Your task to perform on an android device: Go to accessibility settings Image 0: 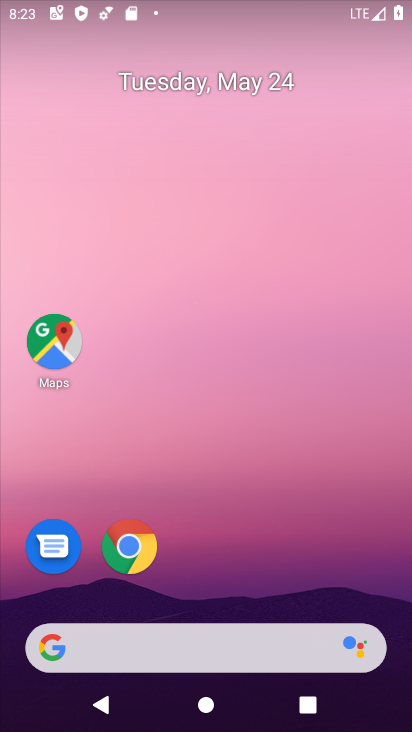
Step 0: drag from (219, 522) to (234, 5)
Your task to perform on an android device: Go to accessibility settings Image 1: 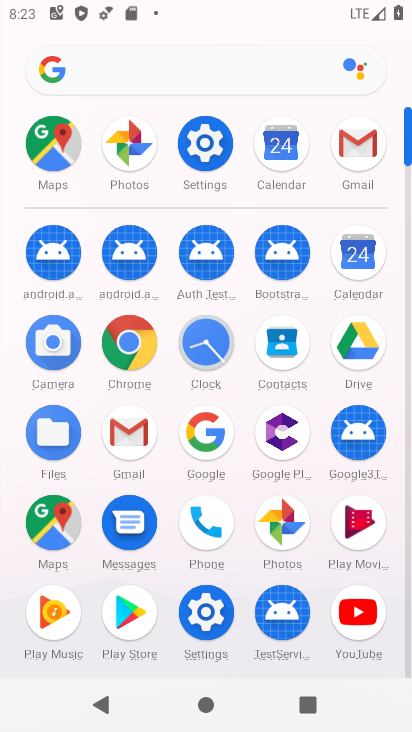
Step 1: click (196, 130)
Your task to perform on an android device: Go to accessibility settings Image 2: 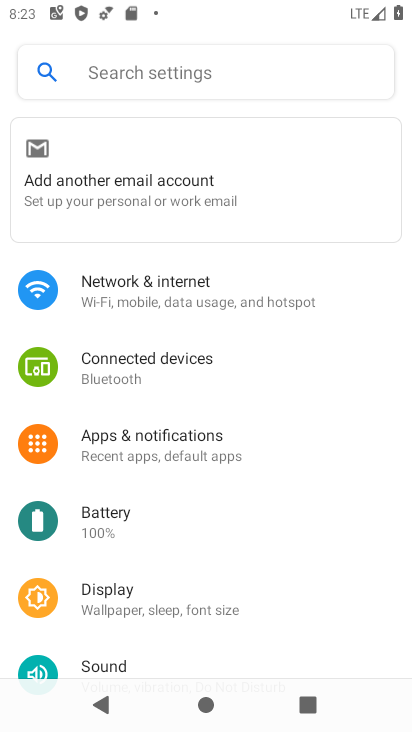
Step 2: drag from (206, 564) to (253, 0)
Your task to perform on an android device: Go to accessibility settings Image 3: 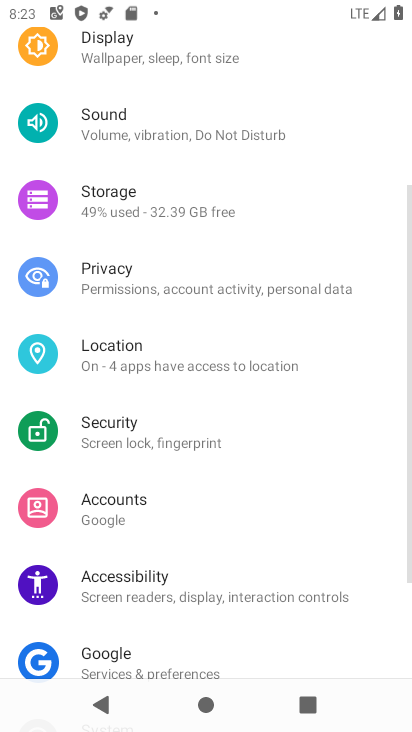
Step 3: click (151, 568)
Your task to perform on an android device: Go to accessibility settings Image 4: 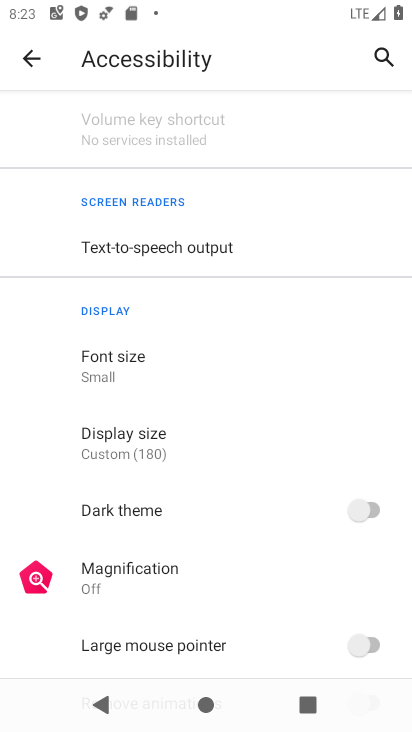
Step 4: task complete